Your task to perform on an android device: turn off notifications settings in the gmail app Image 0: 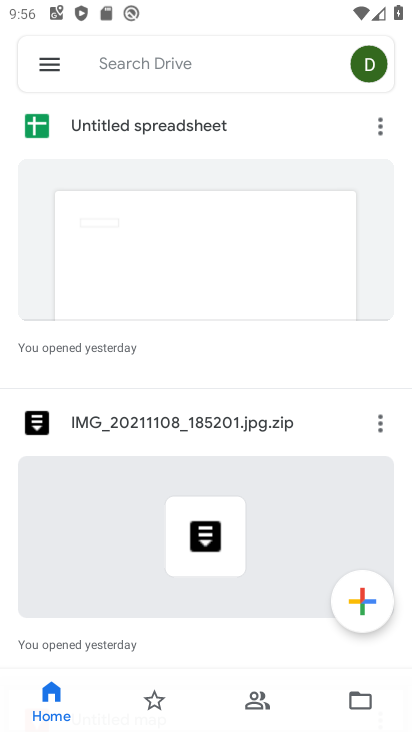
Step 0: press home button
Your task to perform on an android device: turn off notifications settings in the gmail app Image 1: 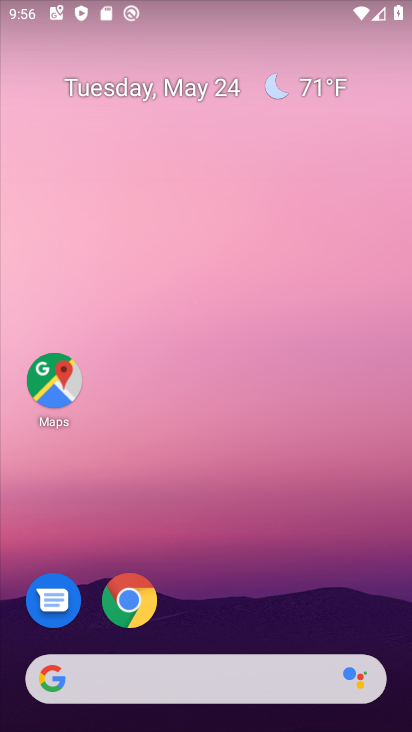
Step 1: drag from (212, 615) to (208, 64)
Your task to perform on an android device: turn off notifications settings in the gmail app Image 2: 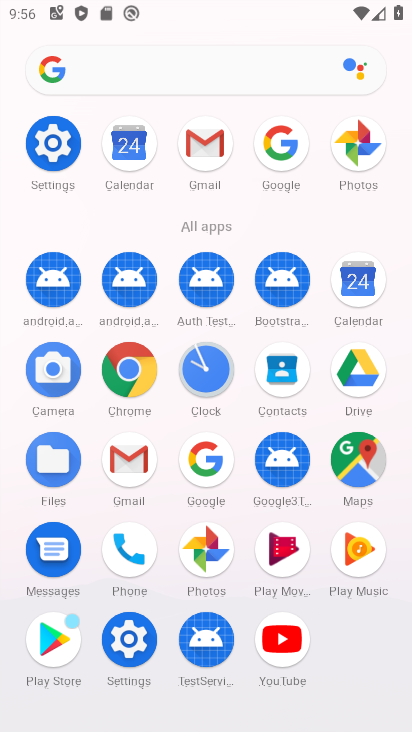
Step 2: click (127, 466)
Your task to perform on an android device: turn off notifications settings in the gmail app Image 3: 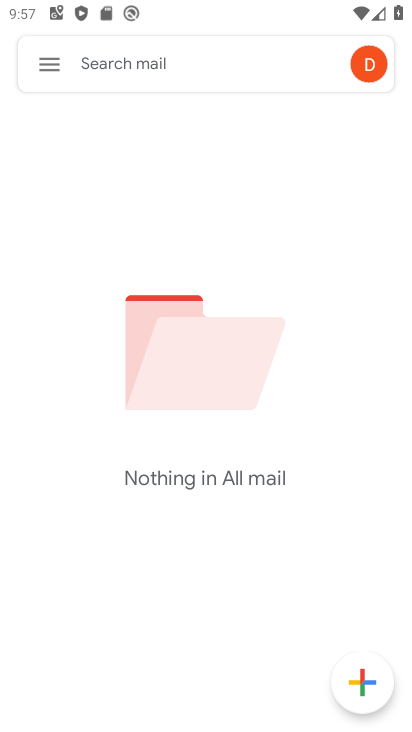
Step 3: click (55, 71)
Your task to perform on an android device: turn off notifications settings in the gmail app Image 4: 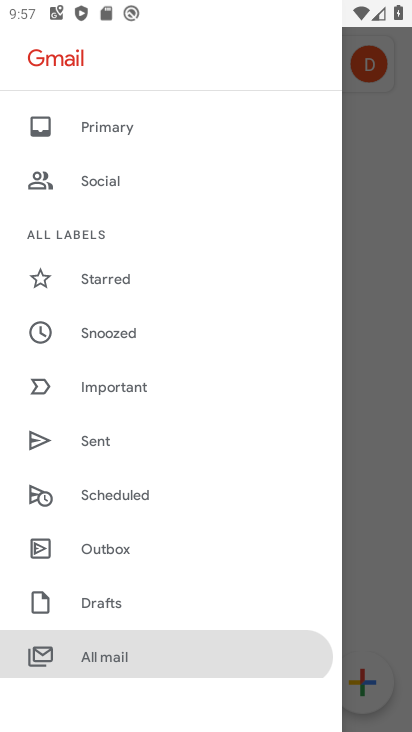
Step 4: click (174, 195)
Your task to perform on an android device: turn off notifications settings in the gmail app Image 5: 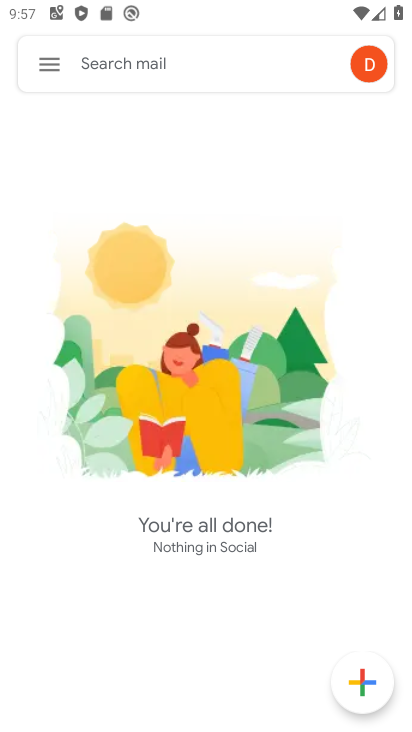
Step 5: drag from (159, 628) to (43, 50)
Your task to perform on an android device: turn off notifications settings in the gmail app Image 6: 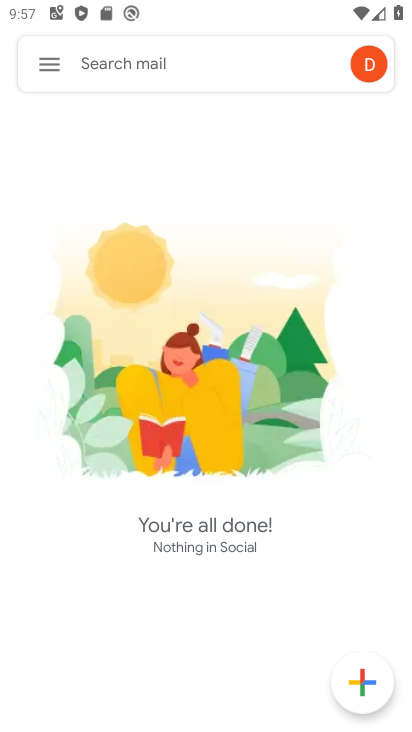
Step 6: click (49, 72)
Your task to perform on an android device: turn off notifications settings in the gmail app Image 7: 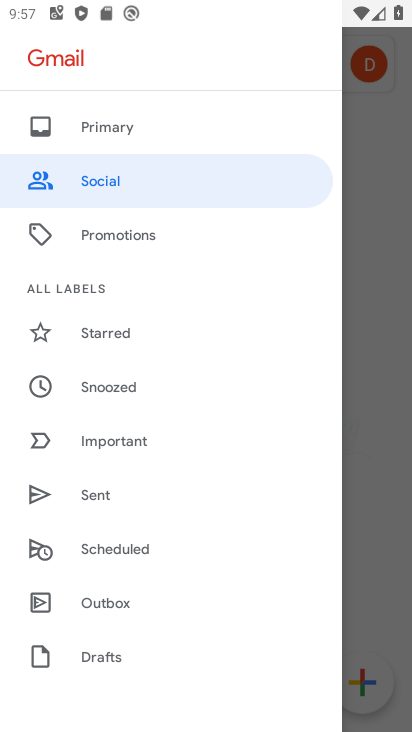
Step 7: drag from (144, 542) to (155, 244)
Your task to perform on an android device: turn off notifications settings in the gmail app Image 8: 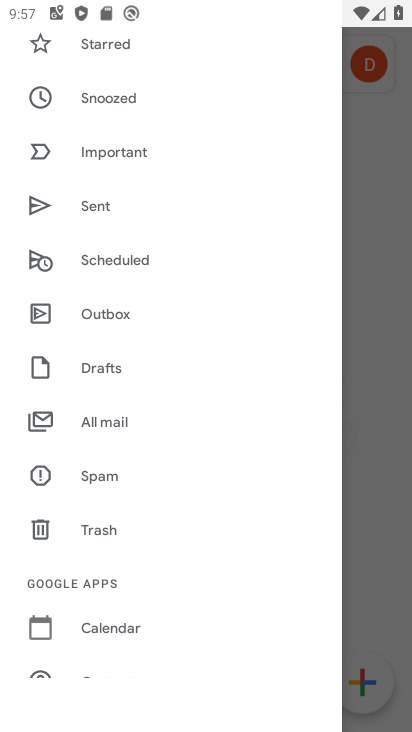
Step 8: click (236, 287)
Your task to perform on an android device: turn off notifications settings in the gmail app Image 9: 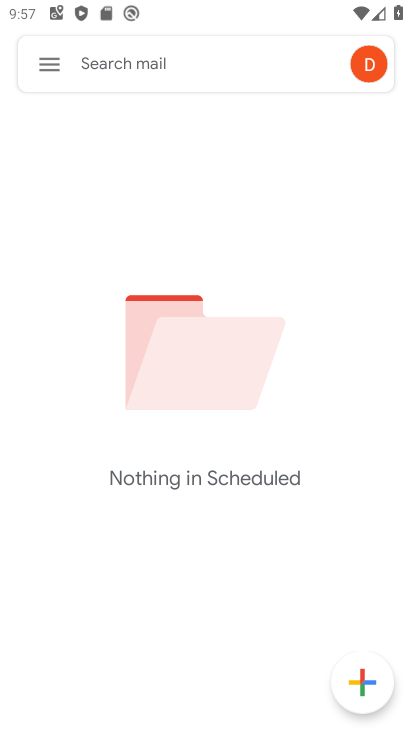
Step 9: click (54, 70)
Your task to perform on an android device: turn off notifications settings in the gmail app Image 10: 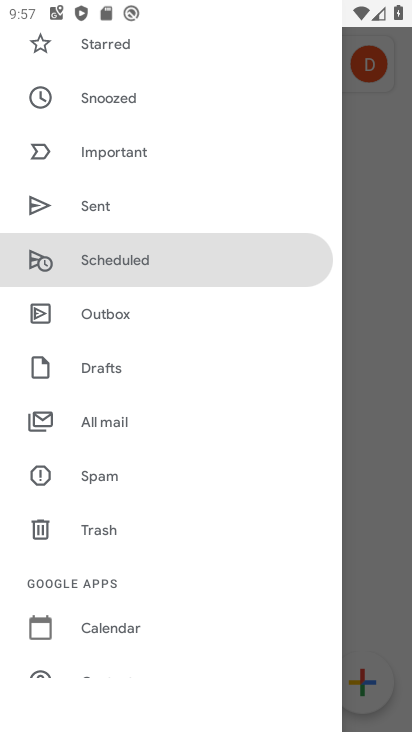
Step 10: drag from (113, 555) to (116, 289)
Your task to perform on an android device: turn off notifications settings in the gmail app Image 11: 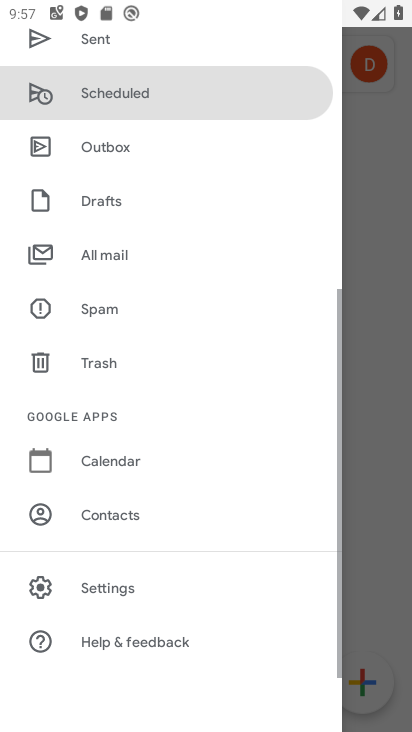
Step 11: click (105, 584)
Your task to perform on an android device: turn off notifications settings in the gmail app Image 12: 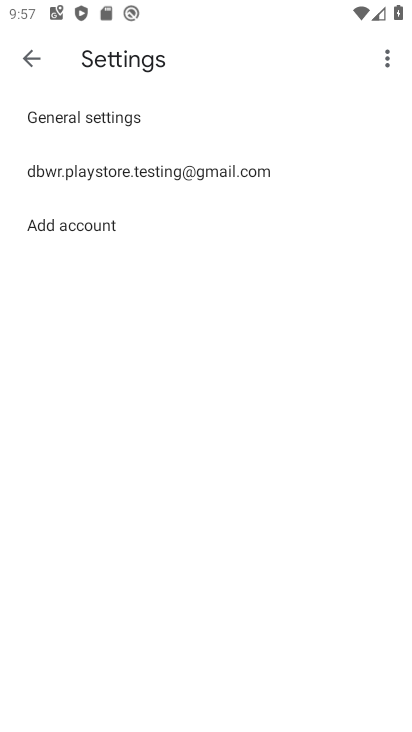
Step 12: click (226, 167)
Your task to perform on an android device: turn off notifications settings in the gmail app Image 13: 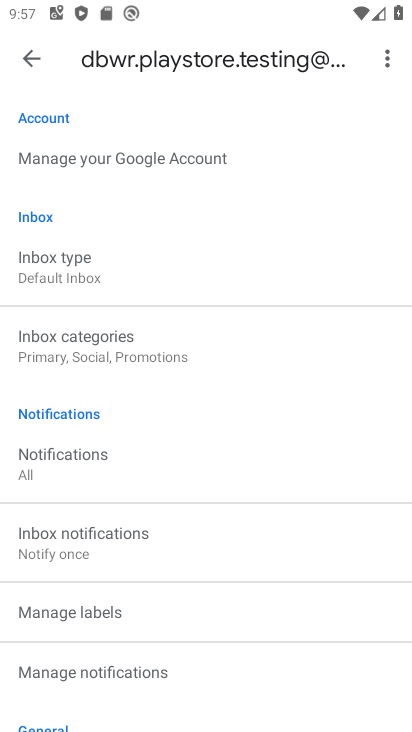
Step 13: click (61, 465)
Your task to perform on an android device: turn off notifications settings in the gmail app Image 14: 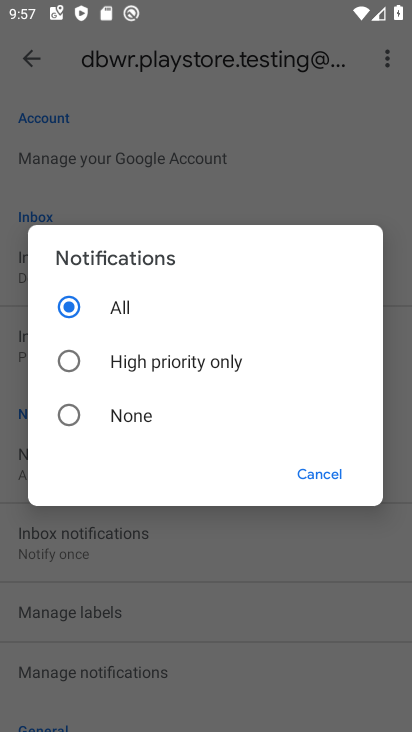
Step 14: click (65, 407)
Your task to perform on an android device: turn off notifications settings in the gmail app Image 15: 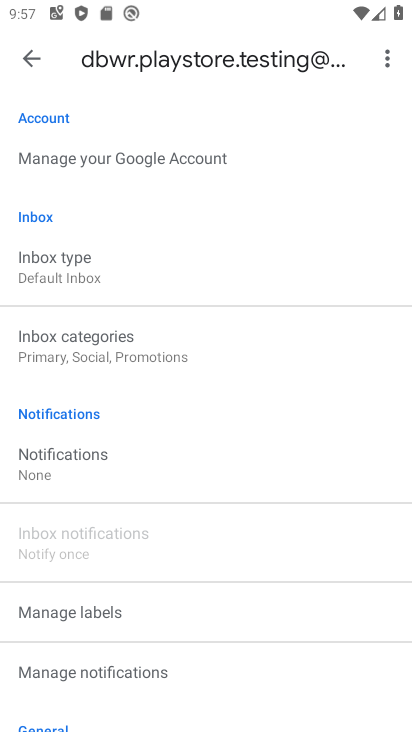
Step 15: task complete